Your task to perform on an android device: set the stopwatch Image 0: 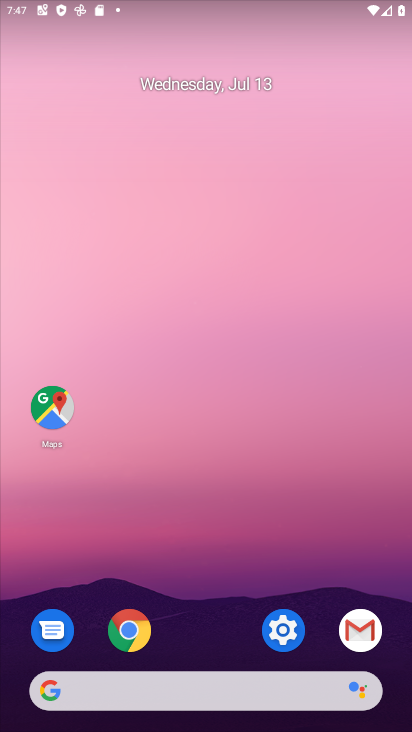
Step 0: drag from (211, 706) to (198, 232)
Your task to perform on an android device: set the stopwatch Image 1: 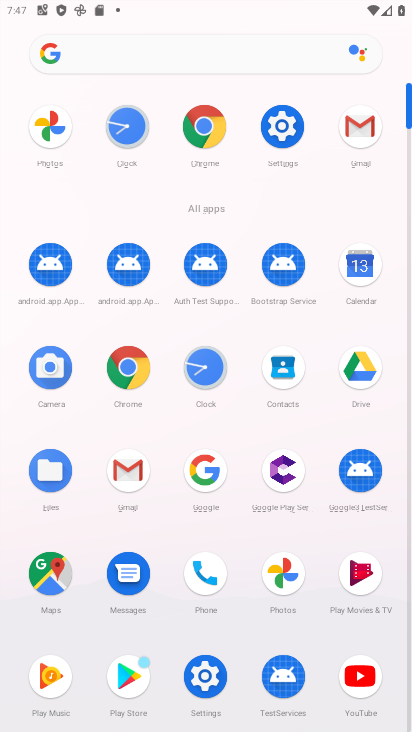
Step 1: click (203, 370)
Your task to perform on an android device: set the stopwatch Image 2: 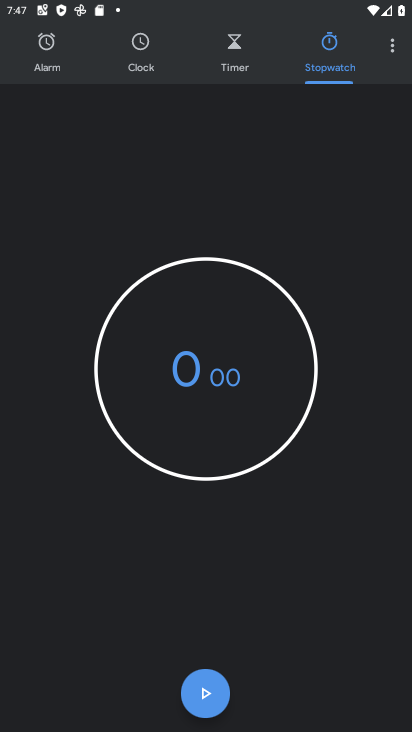
Step 2: click (199, 707)
Your task to perform on an android device: set the stopwatch Image 3: 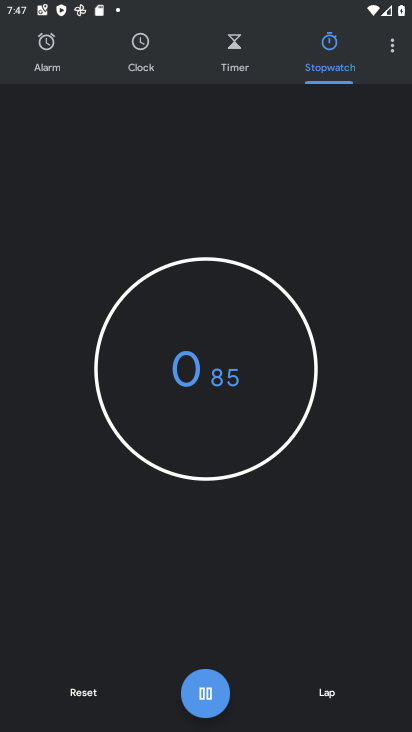
Step 3: click (204, 696)
Your task to perform on an android device: set the stopwatch Image 4: 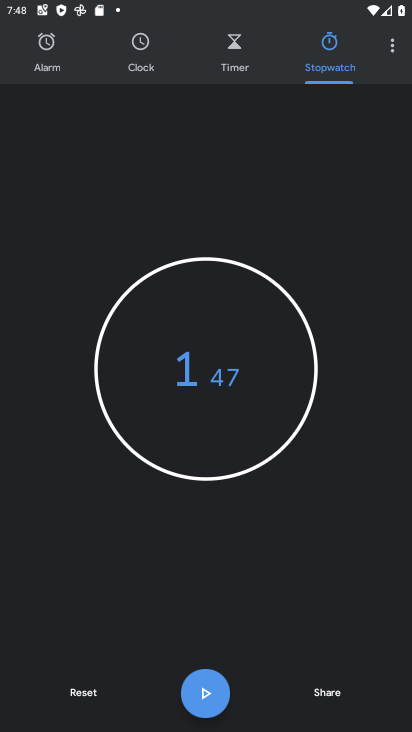
Step 4: task complete